Your task to perform on an android device: open wifi settings Image 0: 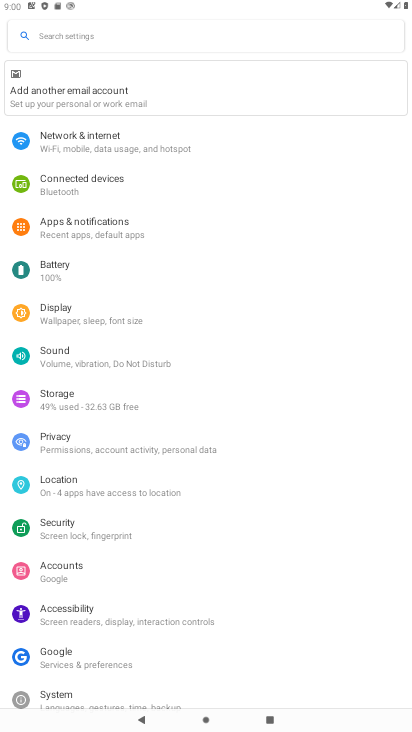
Step 0: click (153, 151)
Your task to perform on an android device: open wifi settings Image 1: 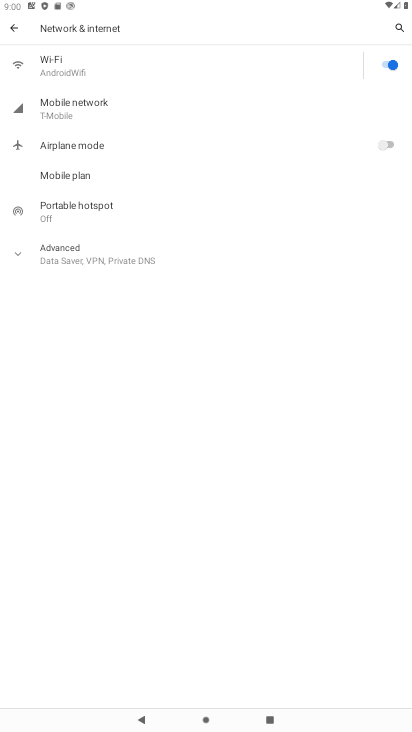
Step 1: drag from (179, 616) to (253, 177)
Your task to perform on an android device: open wifi settings Image 2: 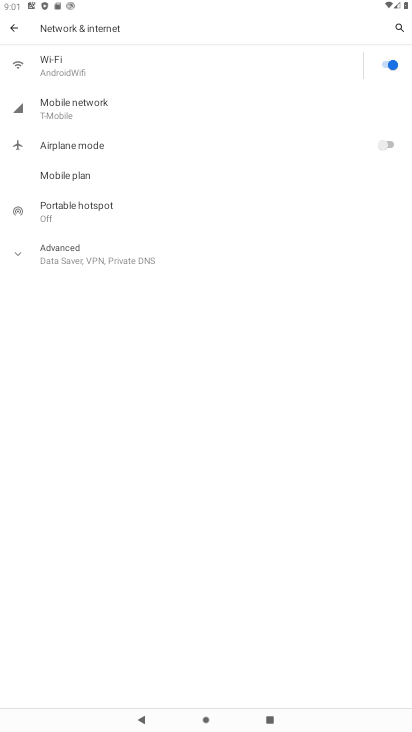
Step 2: click (76, 61)
Your task to perform on an android device: open wifi settings Image 3: 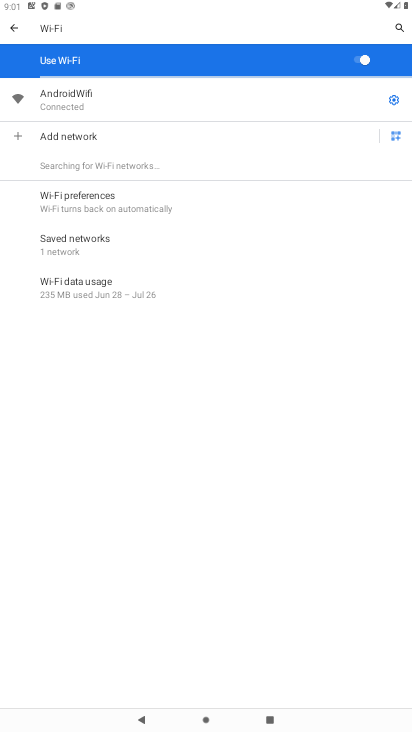
Step 3: click (390, 97)
Your task to perform on an android device: open wifi settings Image 4: 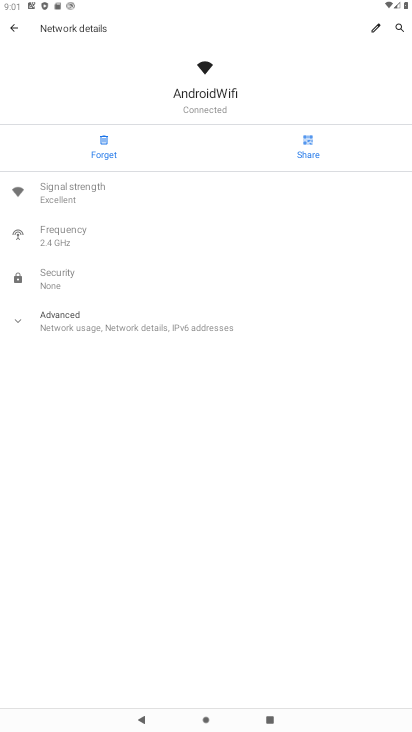
Step 4: task complete